Your task to perform on an android device: Go to internet settings Image 0: 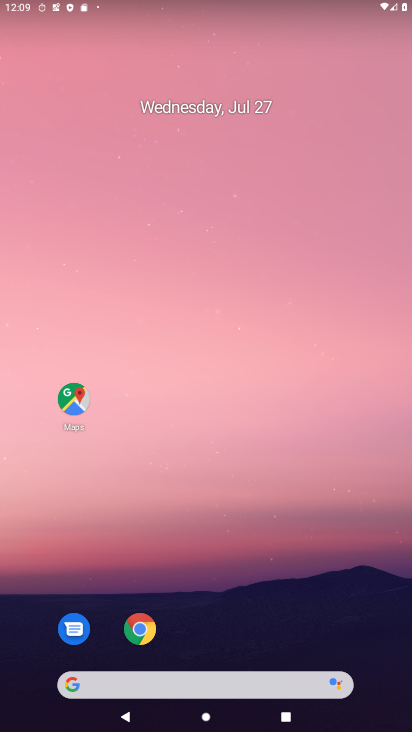
Step 0: drag from (346, 649) to (169, 29)
Your task to perform on an android device: Go to internet settings Image 1: 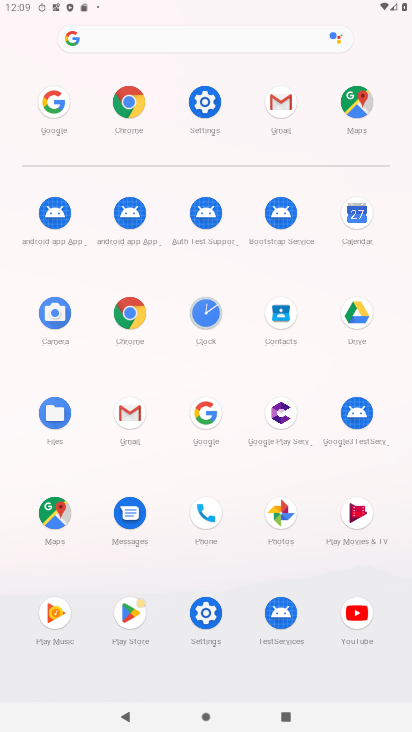
Step 1: click (212, 597)
Your task to perform on an android device: Go to internet settings Image 2: 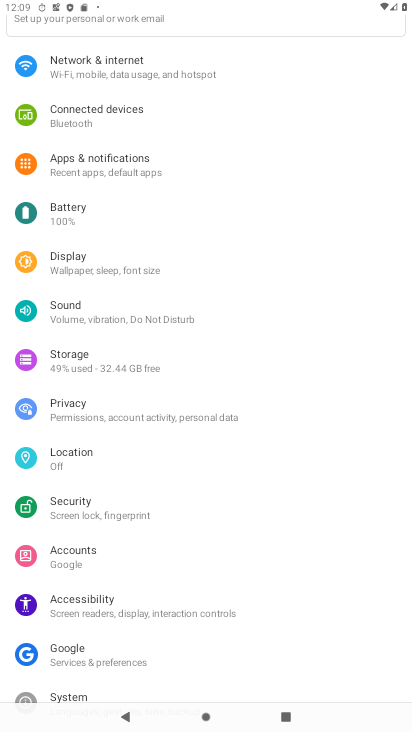
Step 2: drag from (96, 130) to (201, 633)
Your task to perform on an android device: Go to internet settings Image 3: 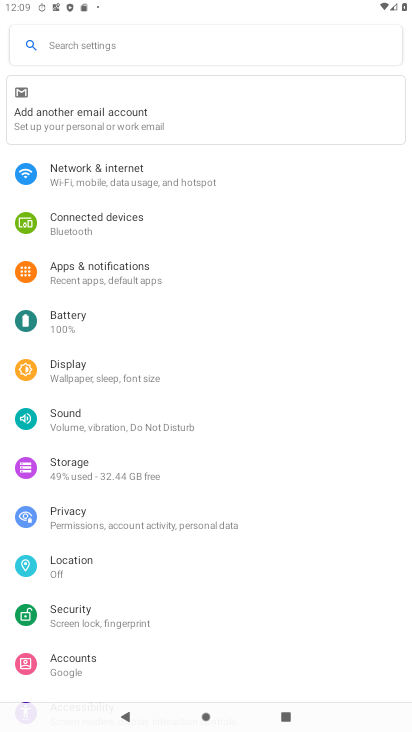
Step 3: click (115, 180)
Your task to perform on an android device: Go to internet settings Image 4: 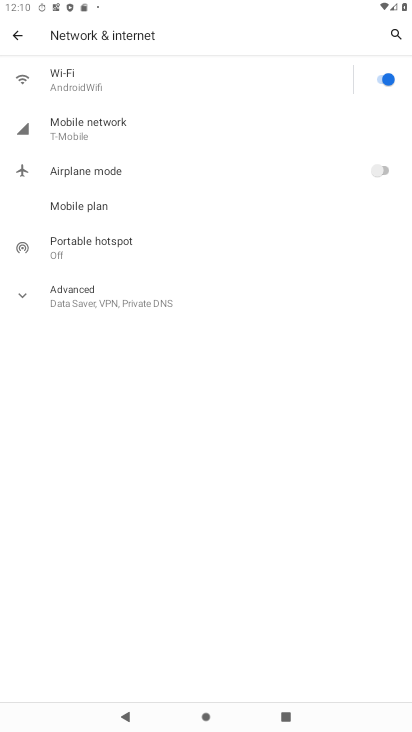
Step 4: task complete